Your task to perform on an android device: Open the phone app and click the voicemail tab. Image 0: 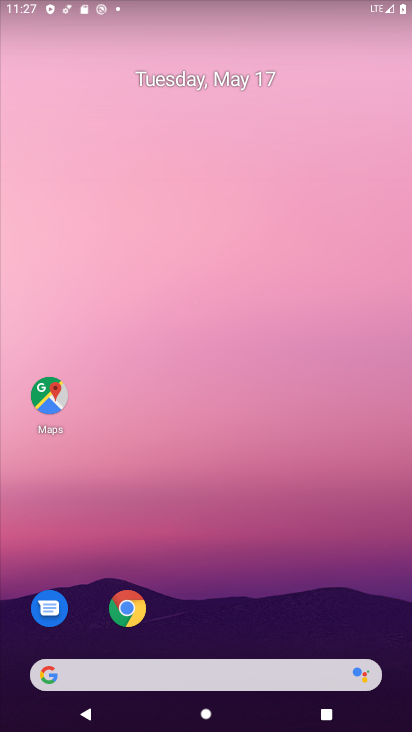
Step 0: drag from (296, 583) to (176, 0)
Your task to perform on an android device: Open the phone app and click the voicemail tab. Image 1: 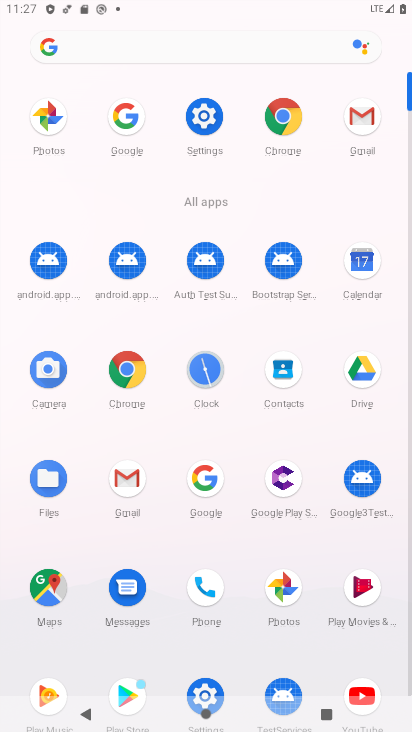
Step 1: click (206, 588)
Your task to perform on an android device: Open the phone app and click the voicemail tab. Image 2: 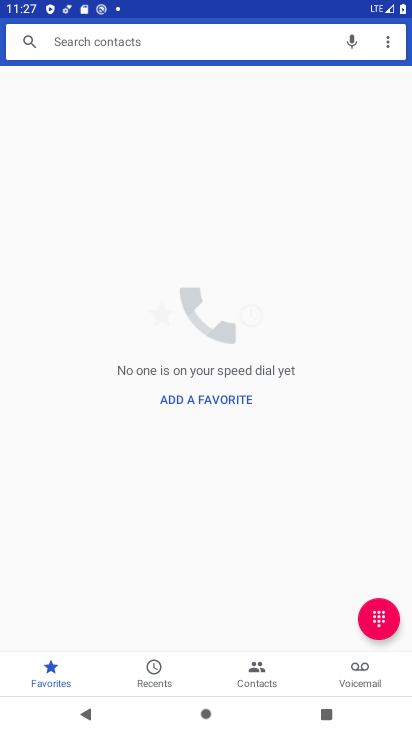
Step 2: click (364, 671)
Your task to perform on an android device: Open the phone app and click the voicemail tab. Image 3: 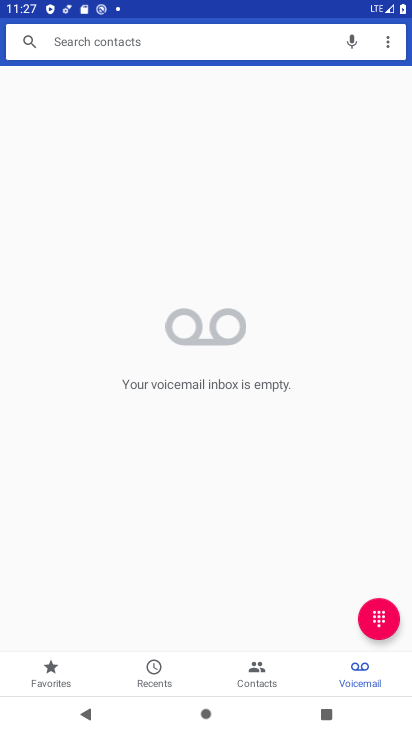
Step 3: task complete